Your task to perform on an android device: Go to location settings Image 0: 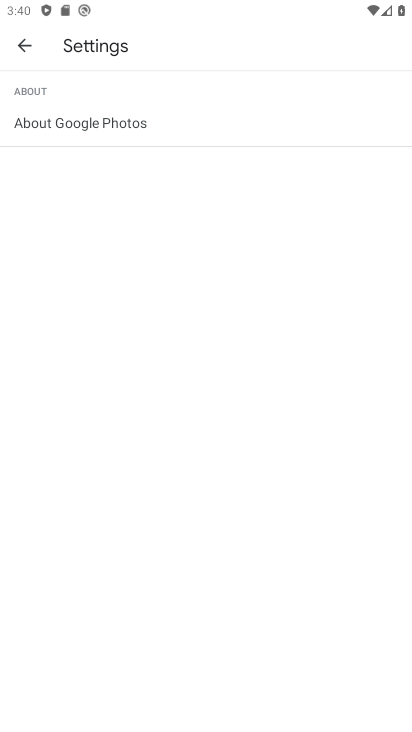
Step 0: press home button
Your task to perform on an android device: Go to location settings Image 1: 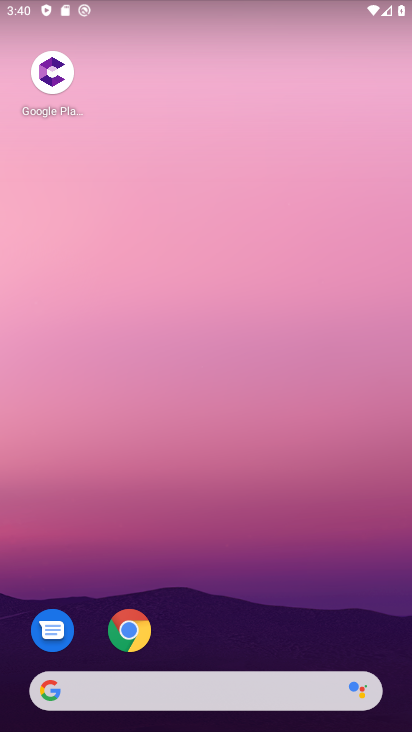
Step 1: drag from (315, 557) to (324, 83)
Your task to perform on an android device: Go to location settings Image 2: 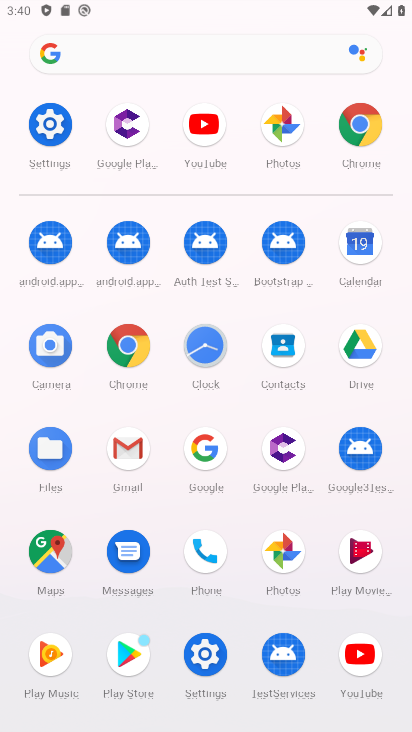
Step 2: click (68, 113)
Your task to perform on an android device: Go to location settings Image 3: 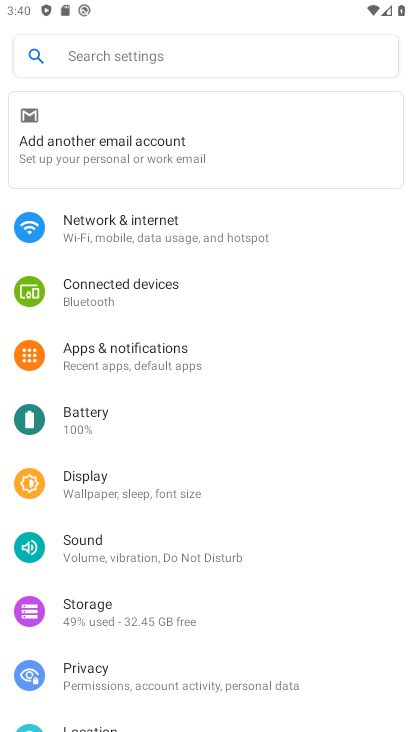
Step 3: click (159, 236)
Your task to perform on an android device: Go to location settings Image 4: 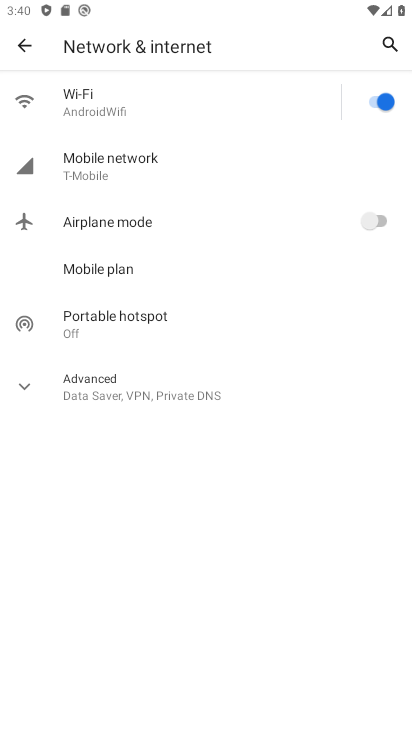
Step 4: click (18, 37)
Your task to perform on an android device: Go to location settings Image 5: 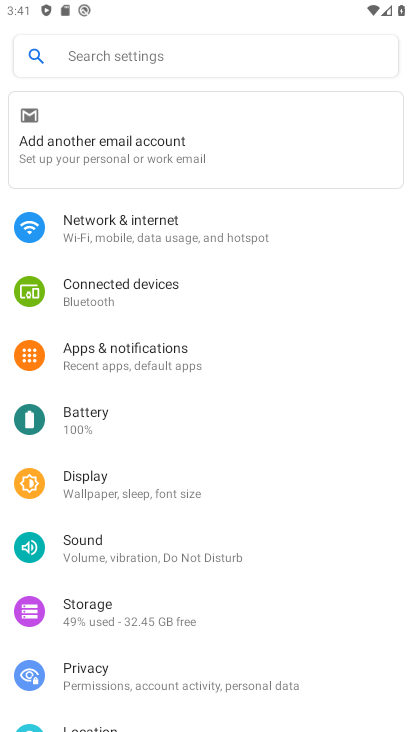
Step 5: drag from (171, 560) to (145, 223)
Your task to perform on an android device: Go to location settings Image 6: 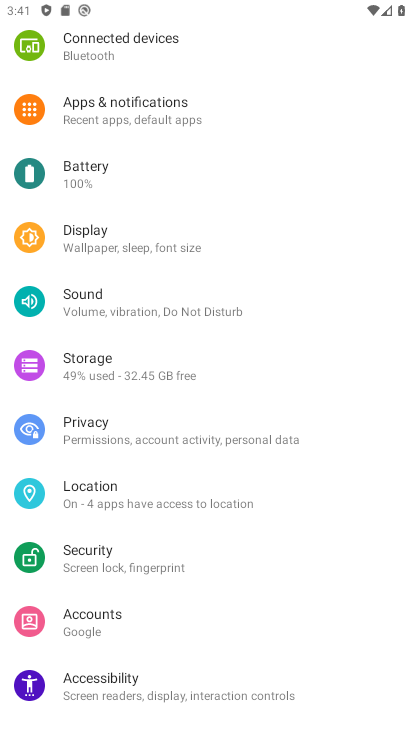
Step 6: click (140, 497)
Your task to perform on an android device: Go to location settings Image 7: 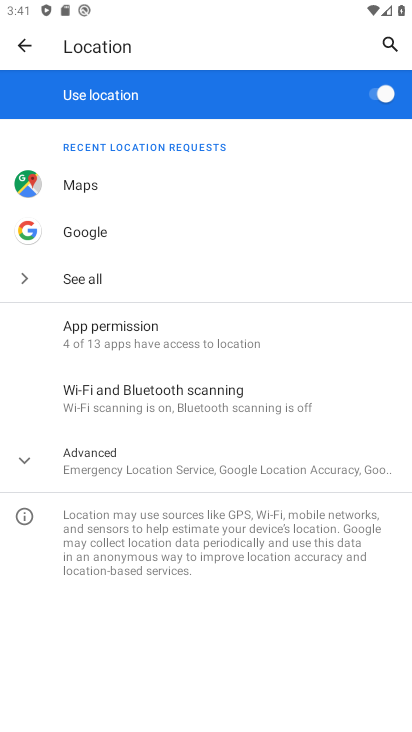
Step 7: task complete